Your task to perform on an android device: change text size in settings app Image 0: 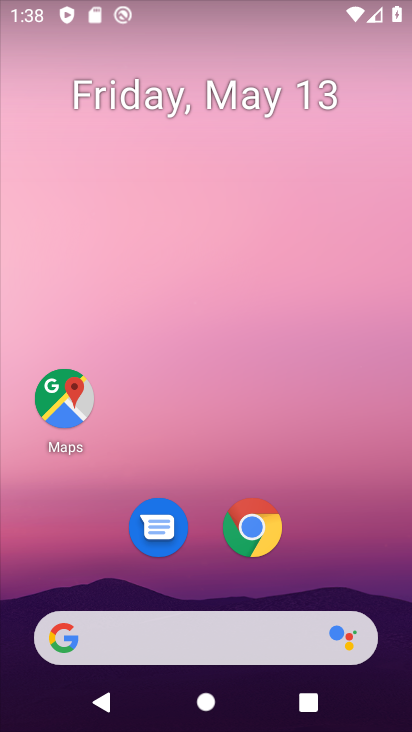
Step 0: press home button
Your task to perform on an android device: change text size in settings app Image 1: 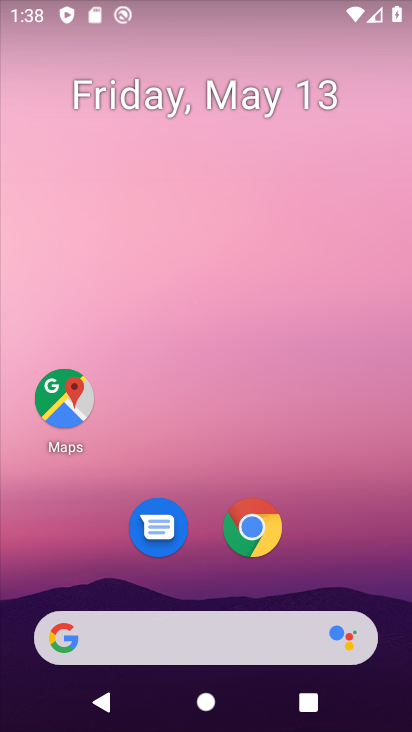
Step 1: drag from (224, 567) to (220, 26)
Your task to perform on an android device: change text size in settings app Image 2: 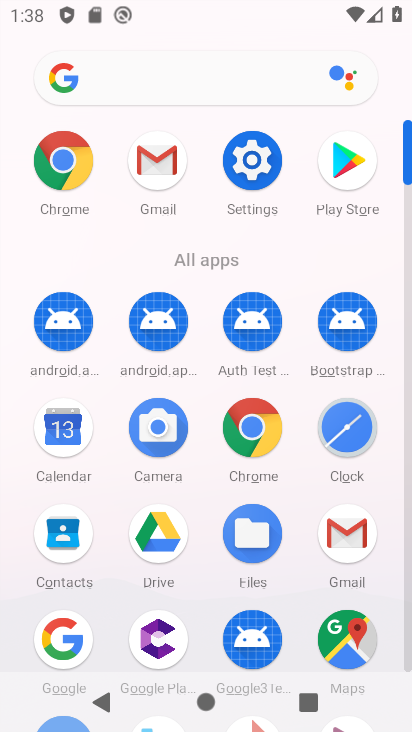
Step 2: click (260, 151)
Your task to perform on an android device: change text size in settings app Image 3: 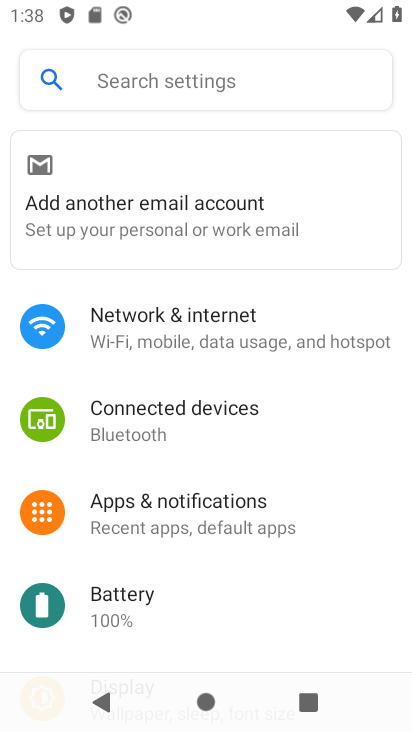
Step 3: drag from (143, 605) to (150, 148)
Your task to perform on an android device: change text size in settings app Image 4: 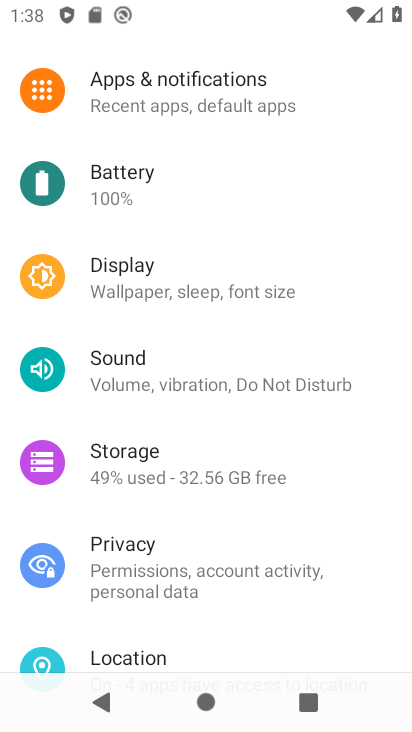
Step 4: click (166, 279)
Your task to perform on an android device: change text size in settings app Image 5: 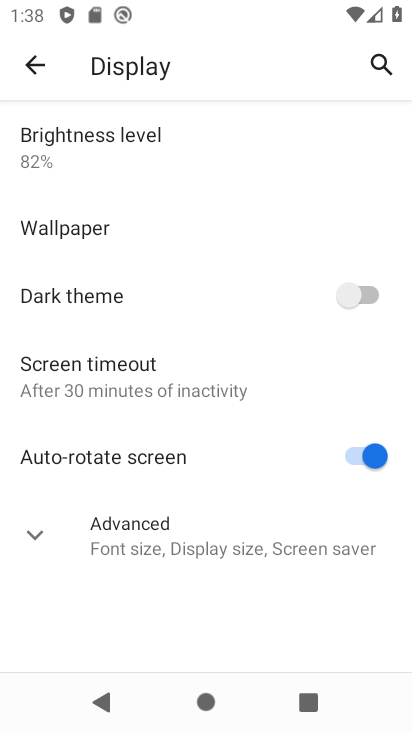
Step 5: click (133, 552)
Your task to perform on an android device: change text size in settings app Image 6: 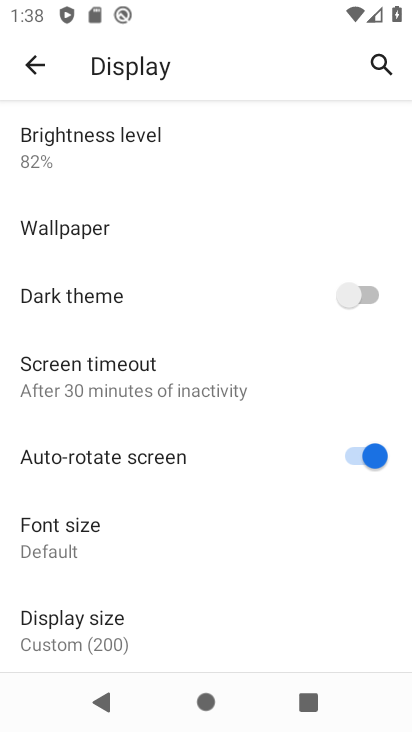
Step 6: drag from (193, 572) to (194, 230)
Your task to perform on an android device: change text size in settings app Image 7: 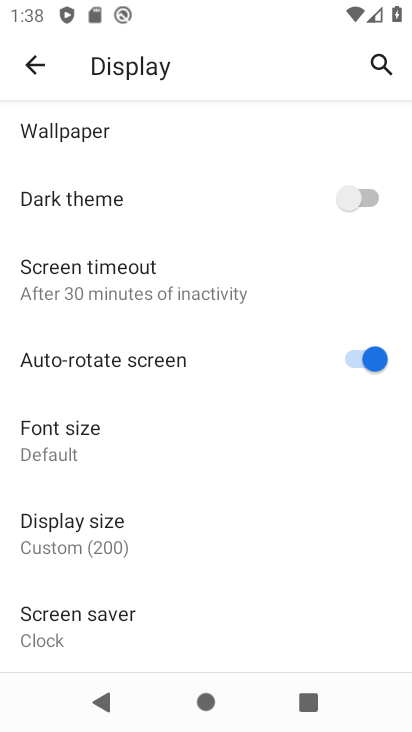
Step 7: drag from (109, 565) to (183, 290)
Your task to perform on an android device: change text size in settings app Image 8: 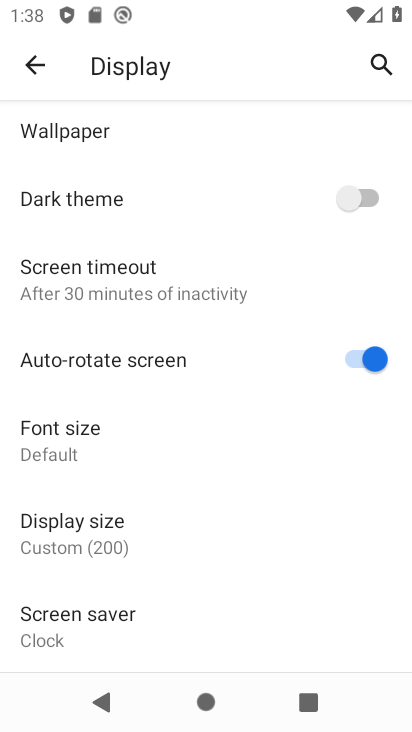
Step 8: click (88, 457)
Your task to perform on an android device: change text size in settings app Image 9: 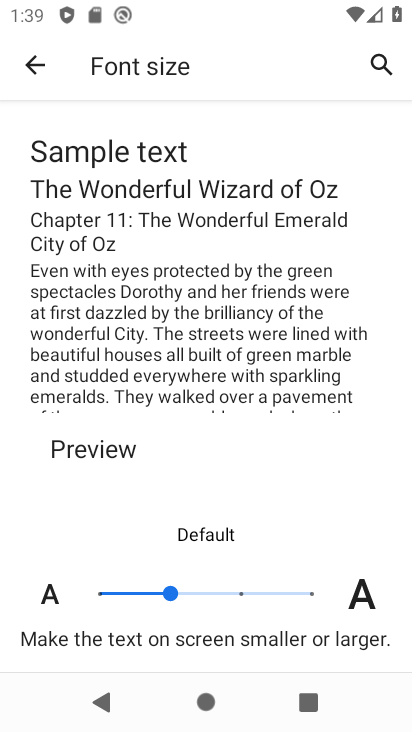
Step 9: click (326, 590)
Your task to perform on an android device: change text size in settings app Image 10: 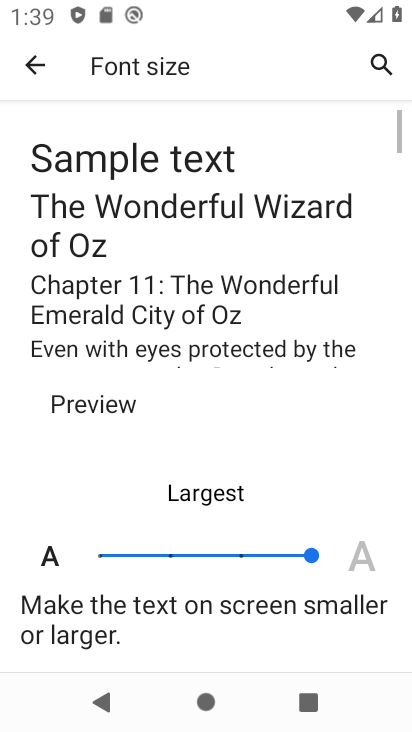
Step 10: task complete